Your task to perform on an android device: open app "Fetch Rewards" (install if not already installed) and go to login screen Image 0: 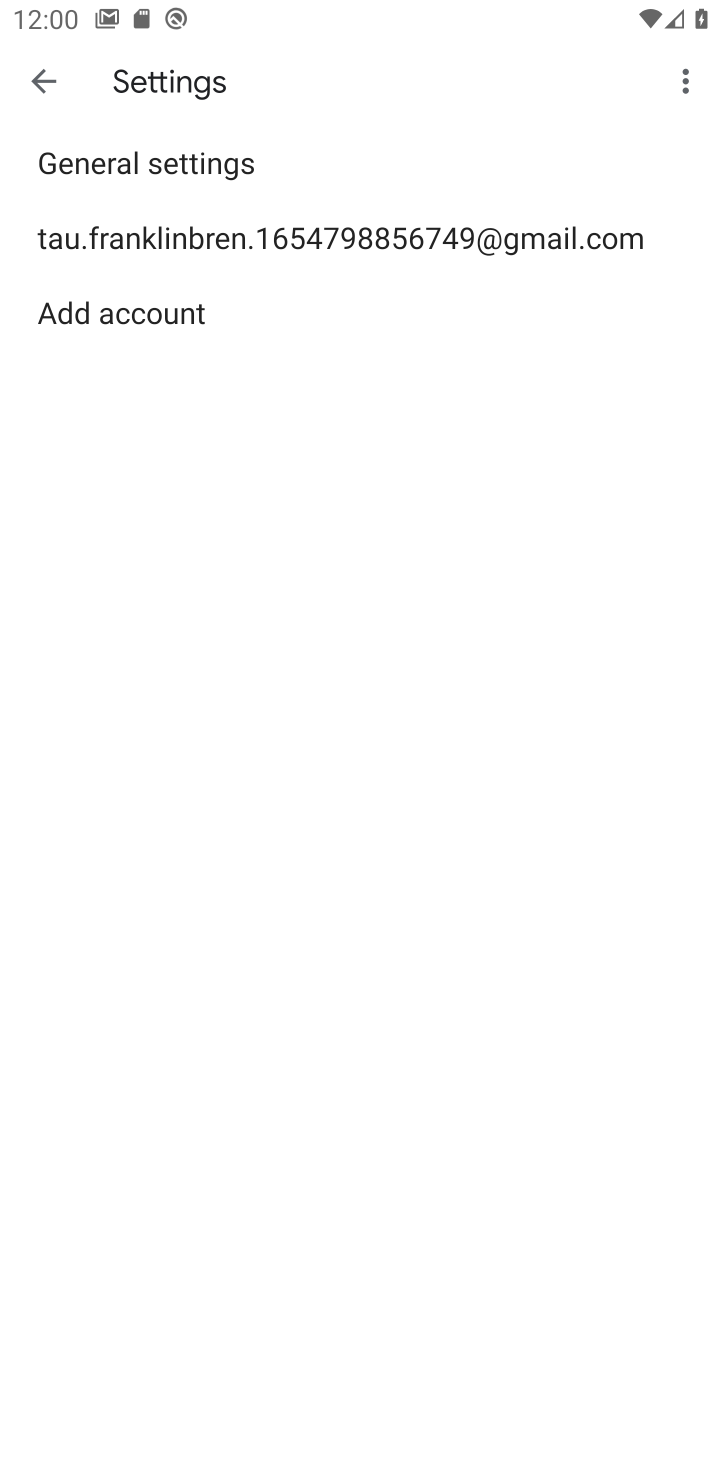
Step 0: press home button
Your task to perform on an android device: open app "Fetch Rewards" (install if not already installed) and go to login screen Image 1: 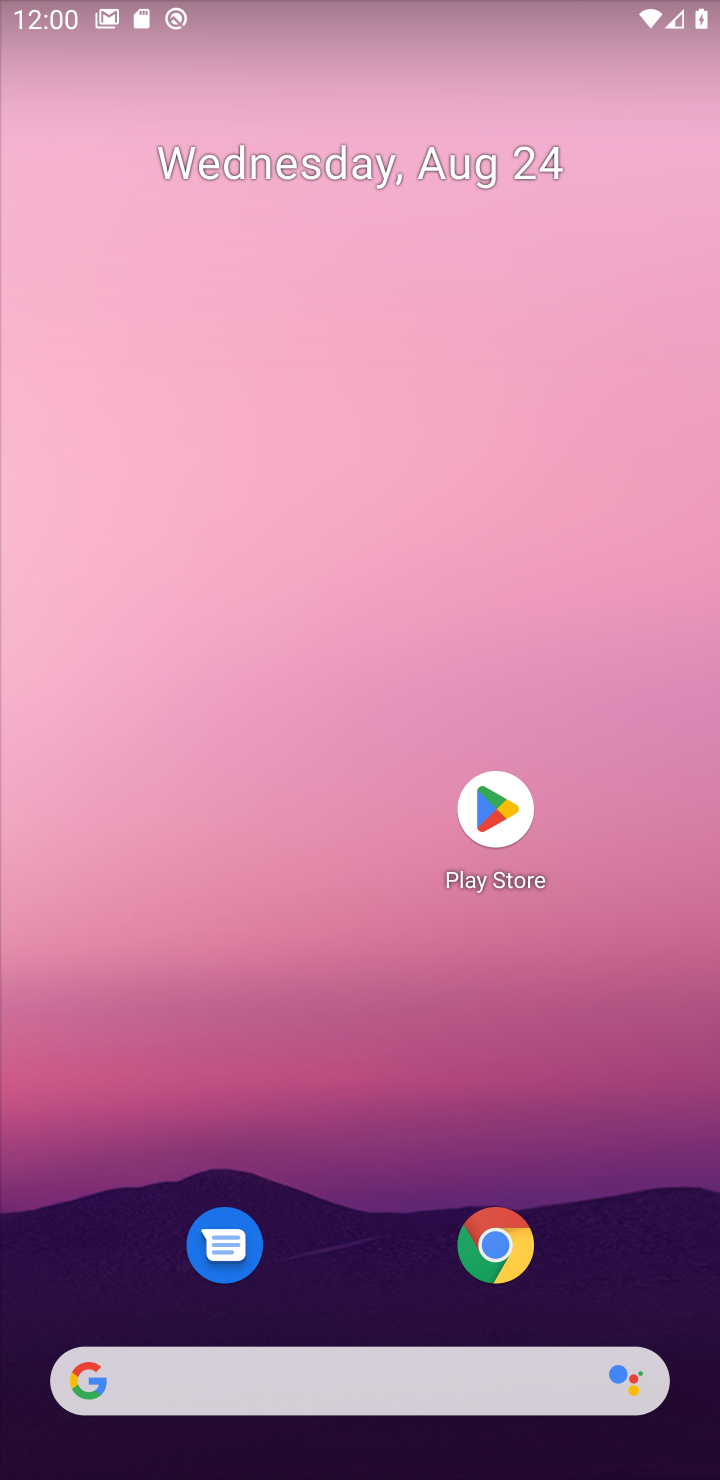
Step 1: click (499, 800)
Your task to perform on an android device: open app "Fetch Rewards" (install if not already installed) and go to login screen Image 2: 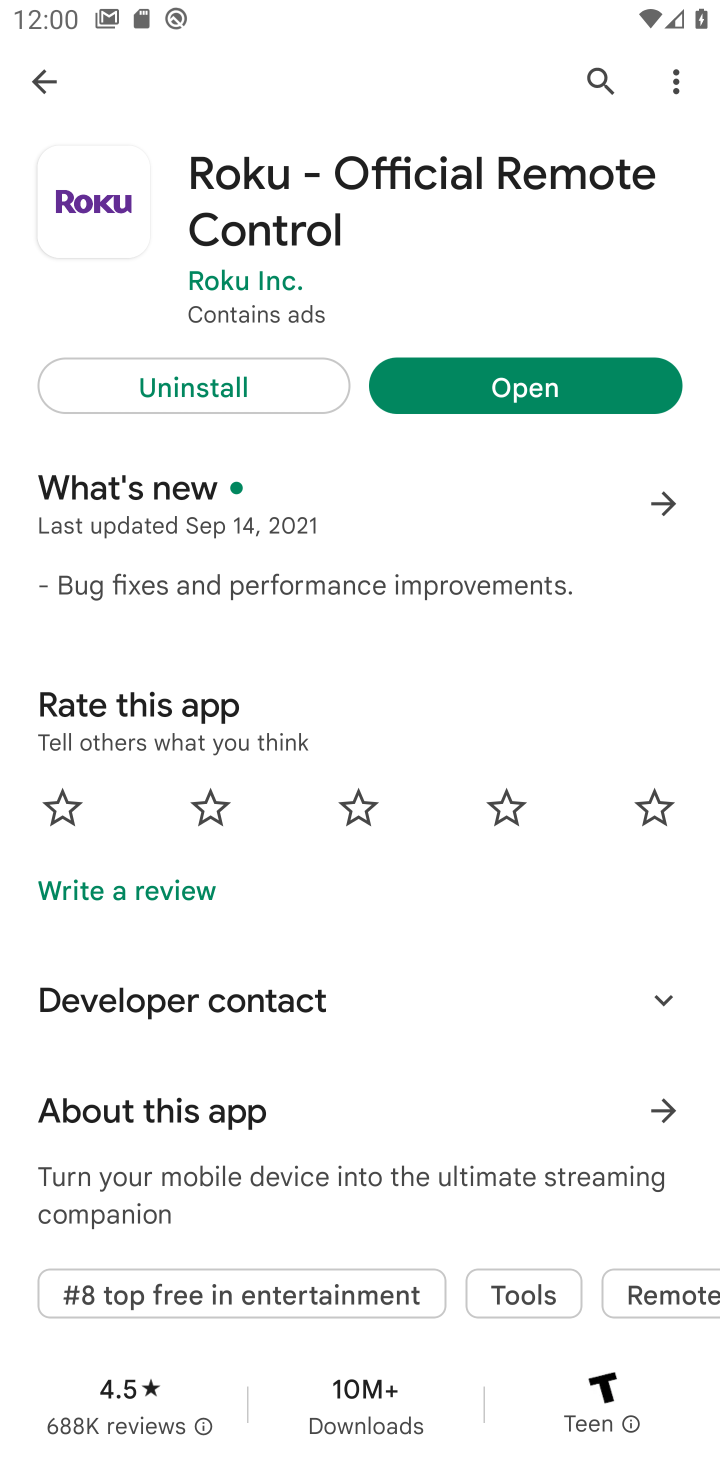
Step 2: click (591, 75)
Your task to perform on an android device: open app "Fetch Rewards" (install if not already installed) and go to login screen Image 3: 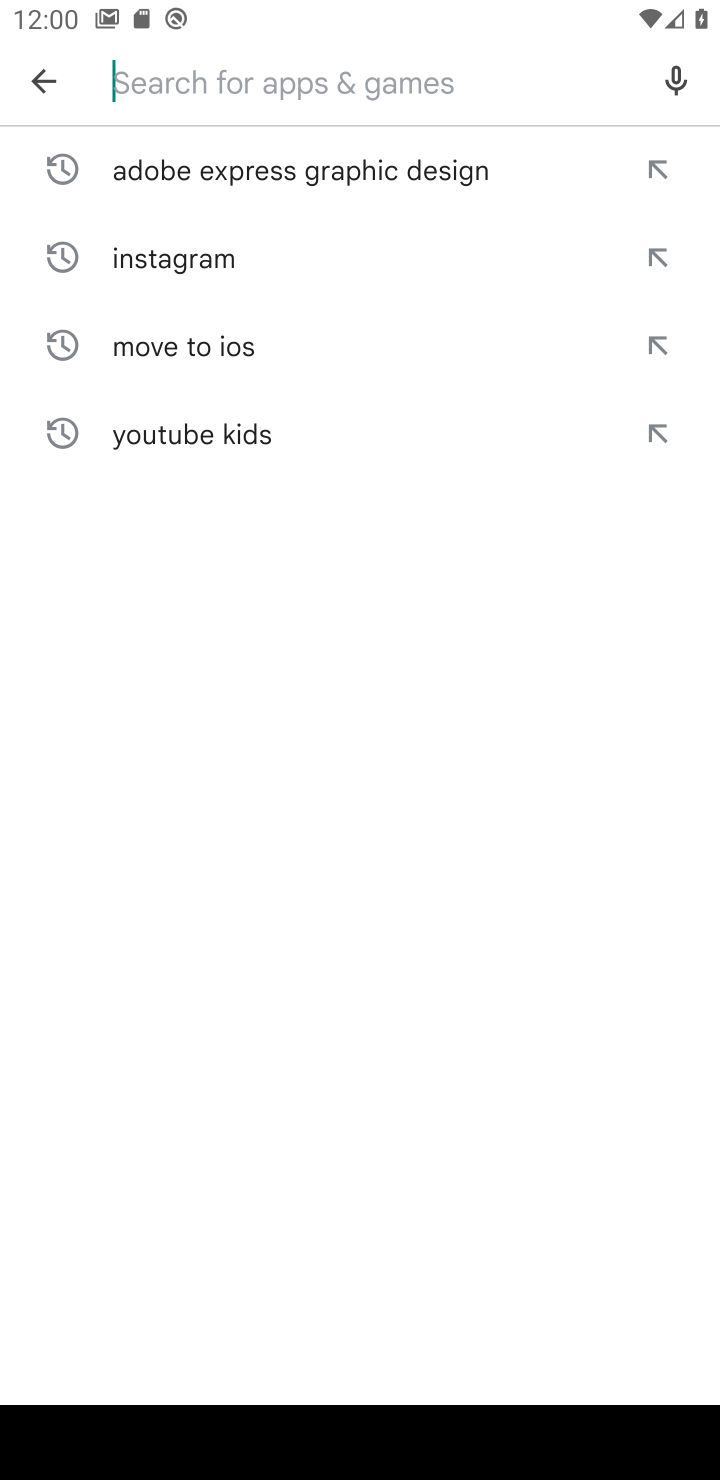
Step 3: type "Fetch Rewards"
Your task to perform on an android device: open app "Fetch Rewards" (install if not already installed) and go to login screen Image 4: 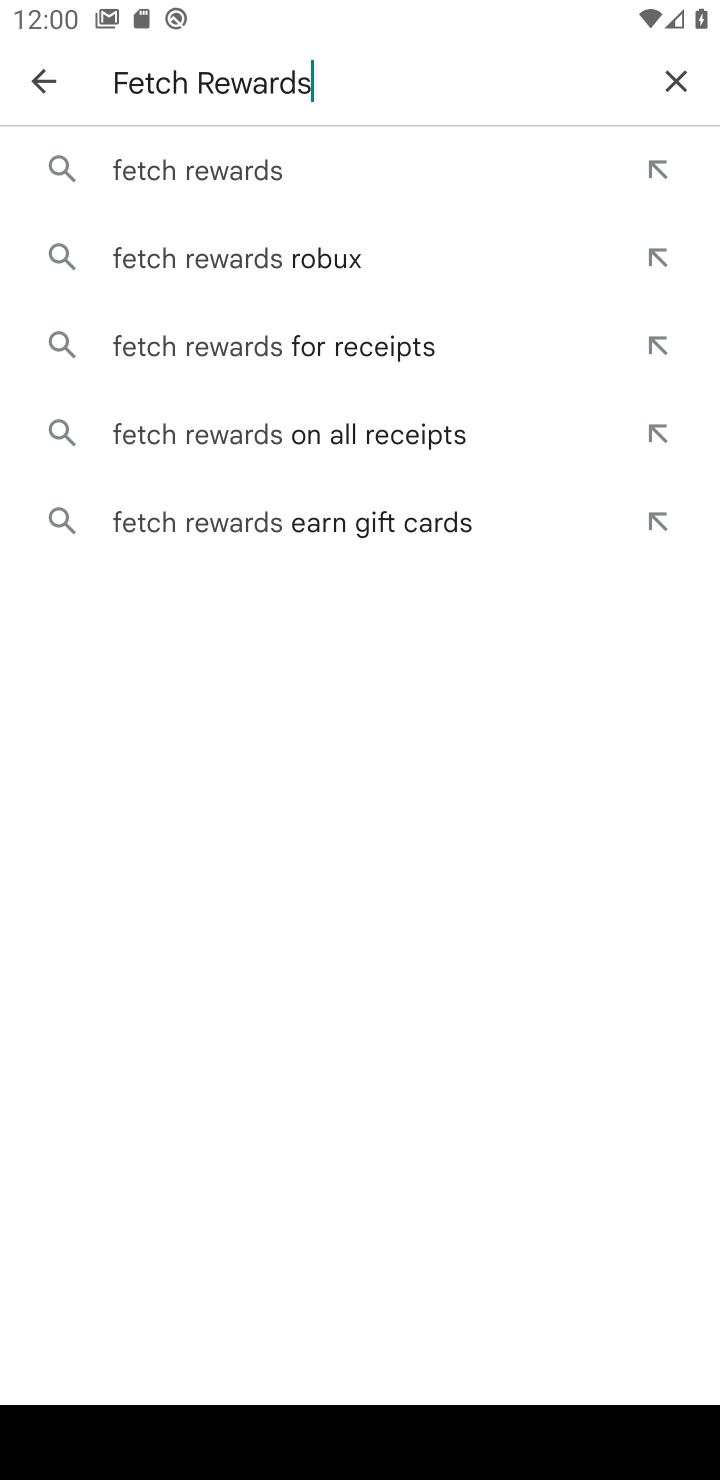
Step 4: click (207, 166)
Your task to perform on an android device: open app "Fetch Rewards" (install if not already installed) and go to login screen Image 5: 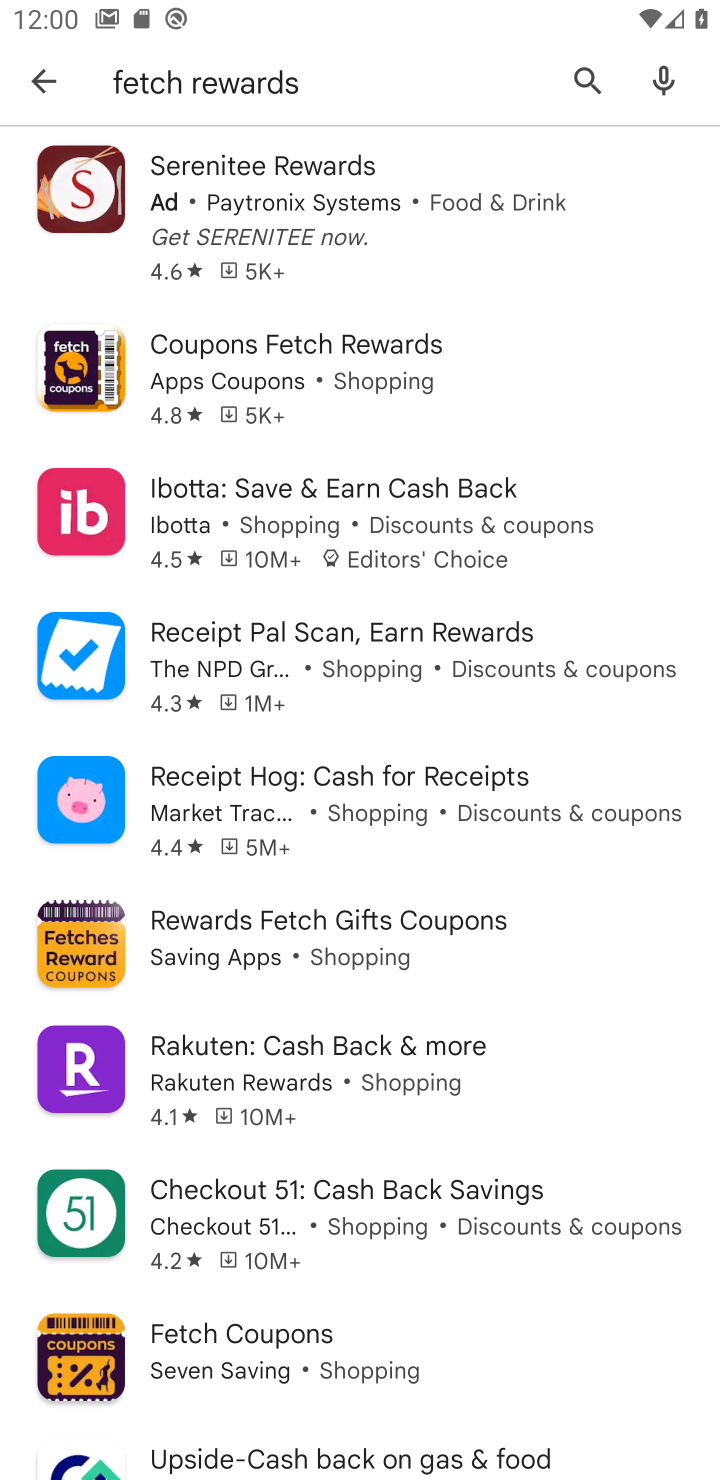
Step 5: task complete